Your task to perform on an android device: set the stopwatch Image 0: 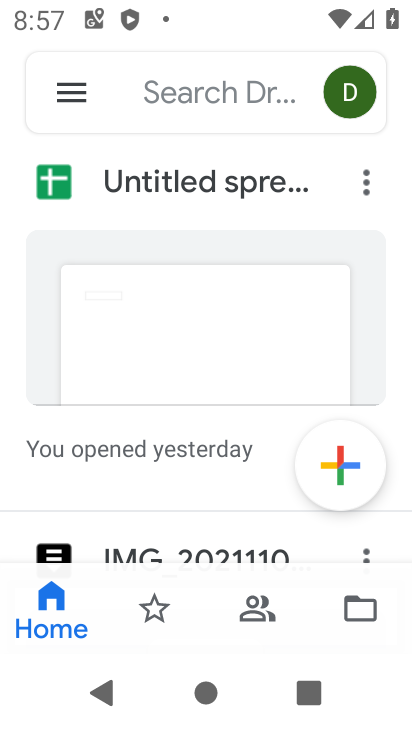
Step 0: press home button
Your task to perform on an android device: set the stopwatch Image 1: 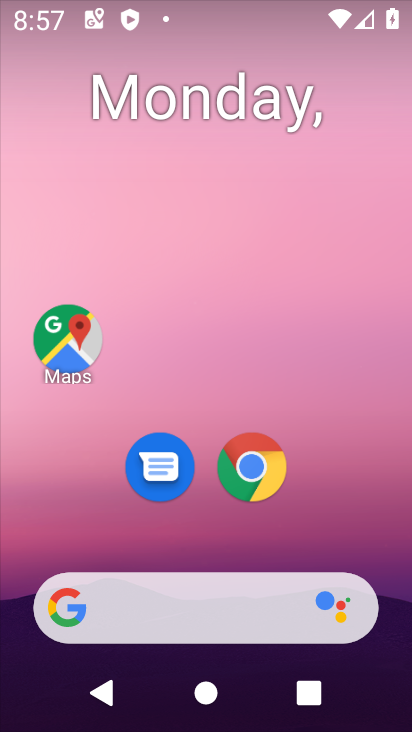
Step 1: drag from (206, 460) to (263, 39)
Your task to perform on an android device: set the stopwatch Image 2: 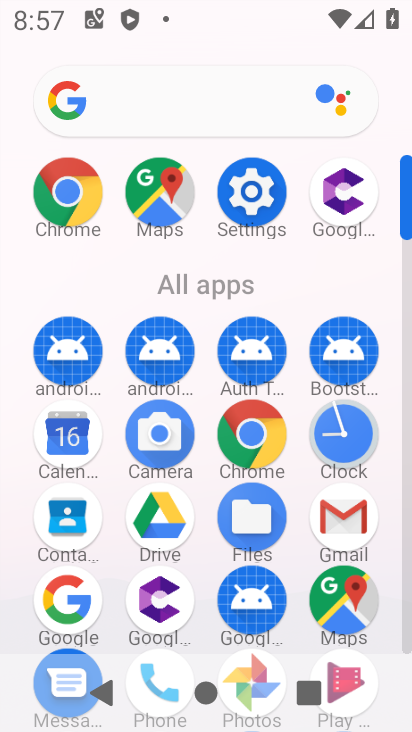
Step 2: click (357, 433)
Your task to perform on an android device: set the stopwatch Image 3: 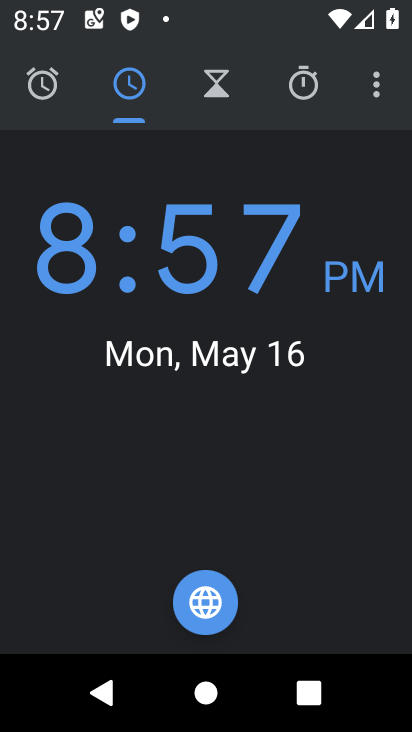
Step 3: click (312, 90)
Your task to perform on an android device: set the stopwatch Image 4: 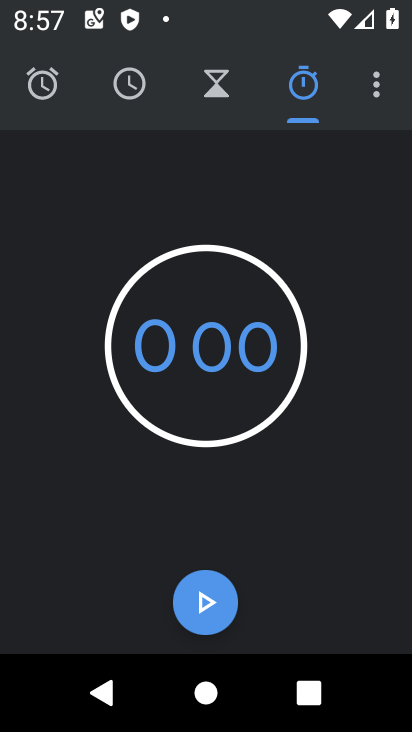
Step 4: click (208, 598)
Your task to perform on an android device: set the stopwatch Image 5: 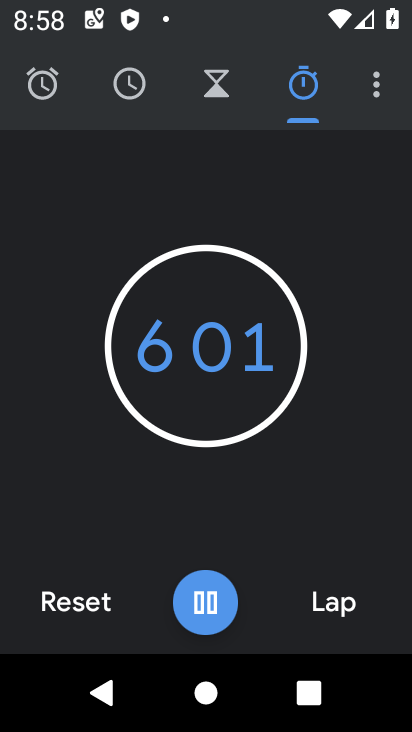
Step 5: task complete